Your task to perform on an android device: Open calendar and show me the fourth week of next month Image 0: 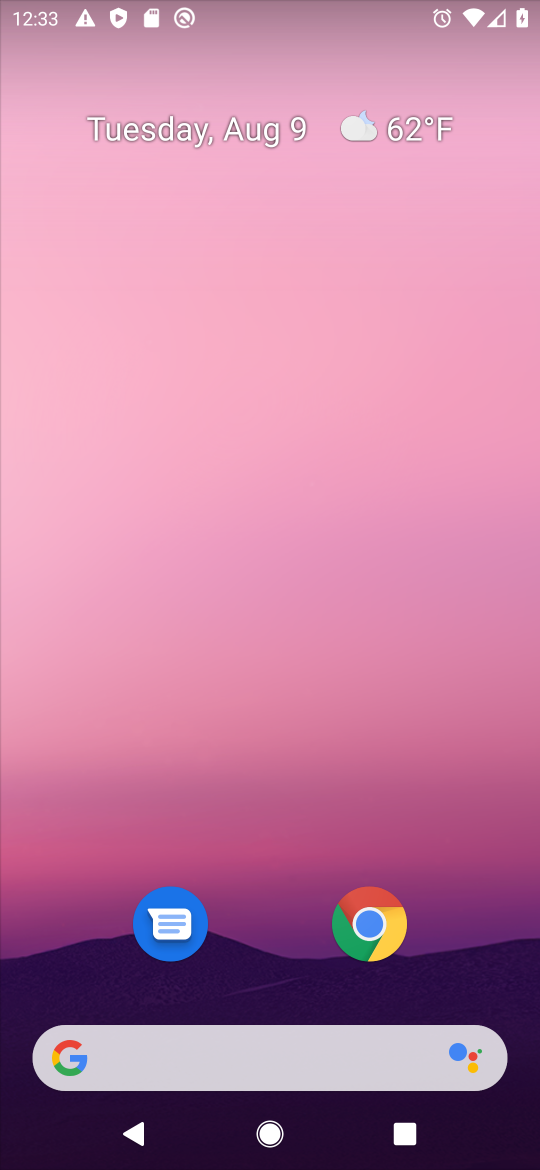
Step 0: task complete